Your task to perform on an android device: Open Reddit.com Image 0: 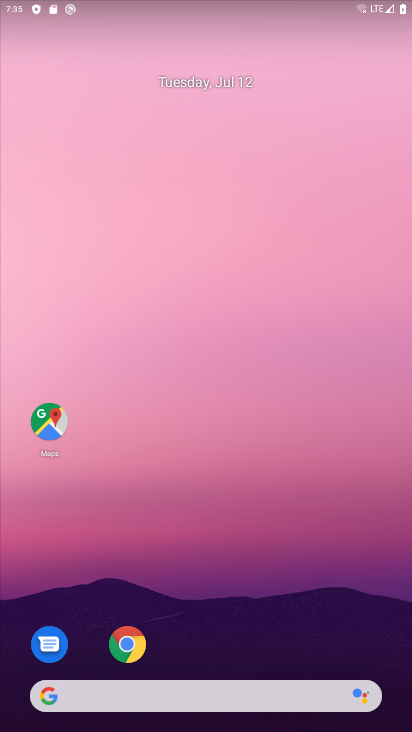
Step 0: drag from (212, 612) to (360, 128)
Your task to perform on an android device: Open Reddit.com Image 1: 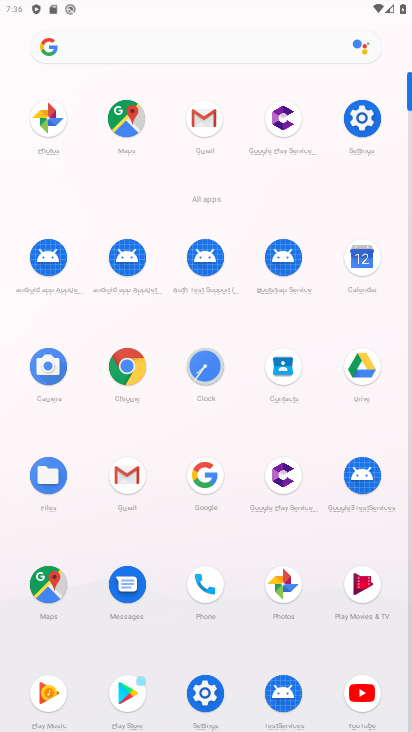
Step 1: click (164, 52)
Your task to perform on an android device: Open Reddit.com Image 2: 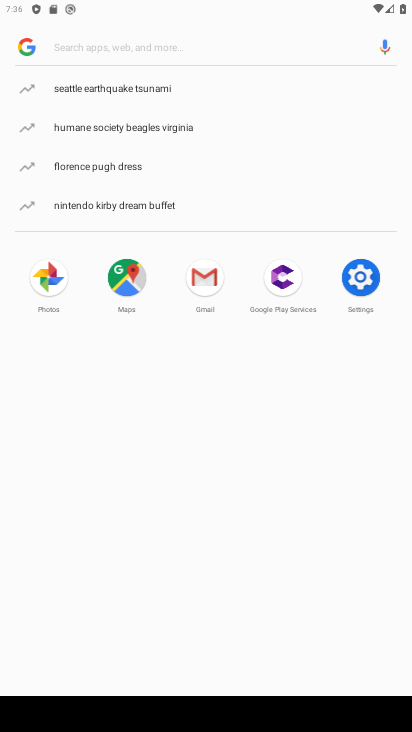
Step 2: type "Reddit.com"
Your task to perform on an android device: Open Reddit.com Image 3: 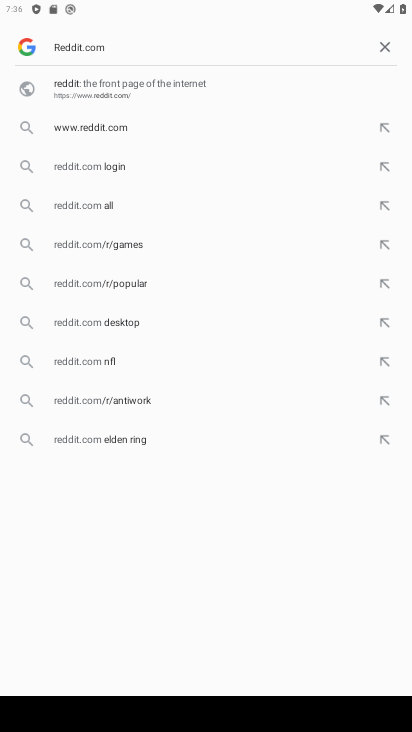
Step 3: type ""
Your task to perform on an android device: Open Reddit.com Image 4: 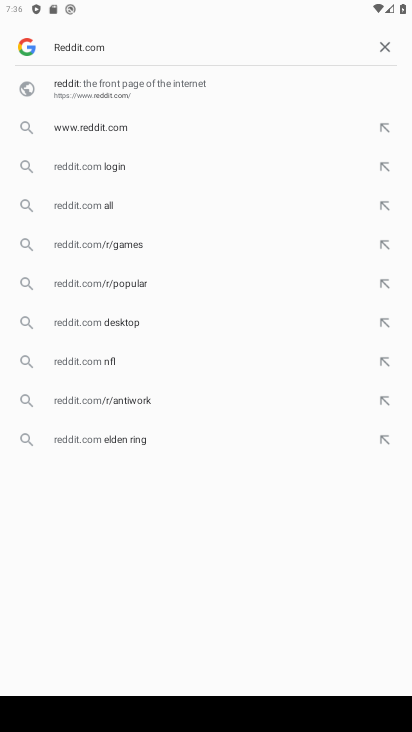
Step 4: click (113, 119)
Your task to perform on an android device: Open Reddit.com Image 5: 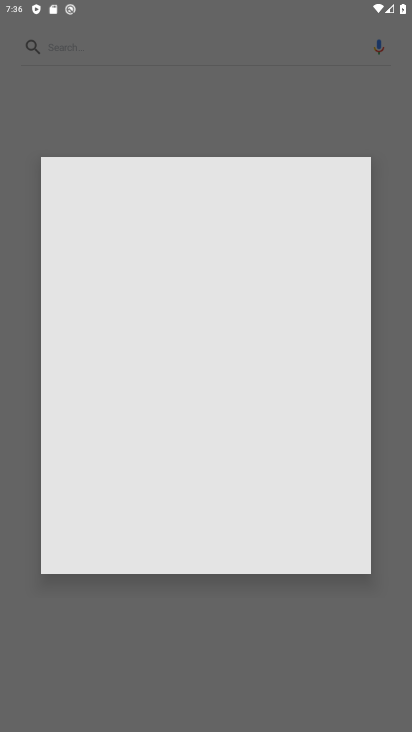
Step 5: drag from (208, 534) to (267, 51)
Your task to perform on an android device: Open Reddit.com Image 6: 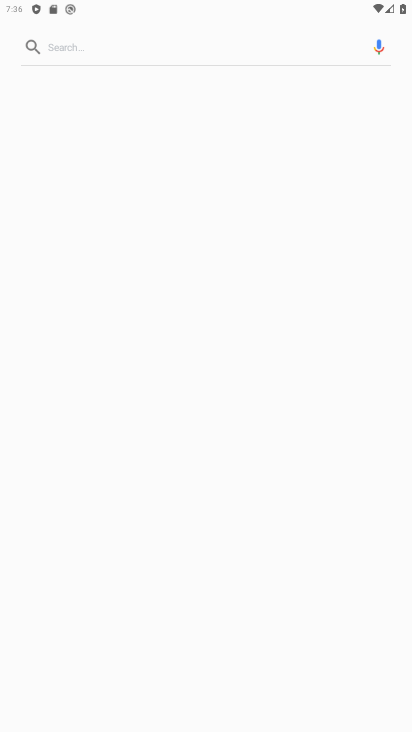
Step 6: drag from (215, 489) to (223, 101)
Your task to perform on an android device: Open Reddit.com Image 7: 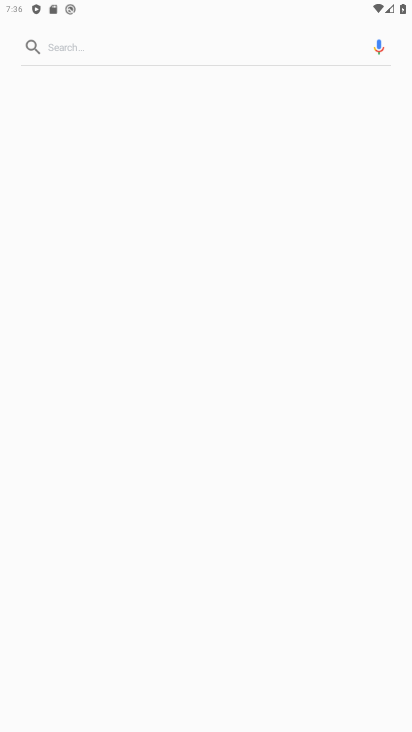
Step 7: click (52, 45)
Your task to perform on an android device: Open Reddit.com Image 8: 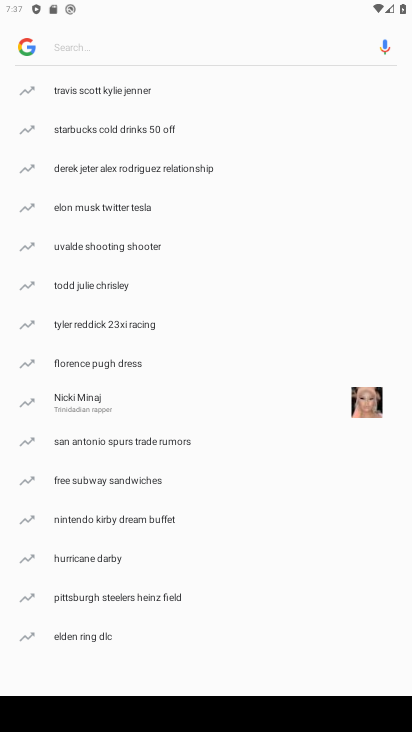
Step 8: type "Reddit.com"
Your task to perform on an android device: Open Reddit.com Image 9: 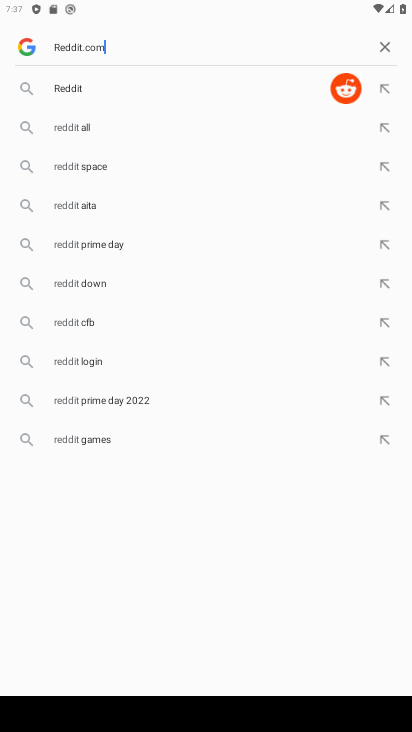
Step 9: type ""
Your task to perform on an android device: Open Reddit.com Image 10: 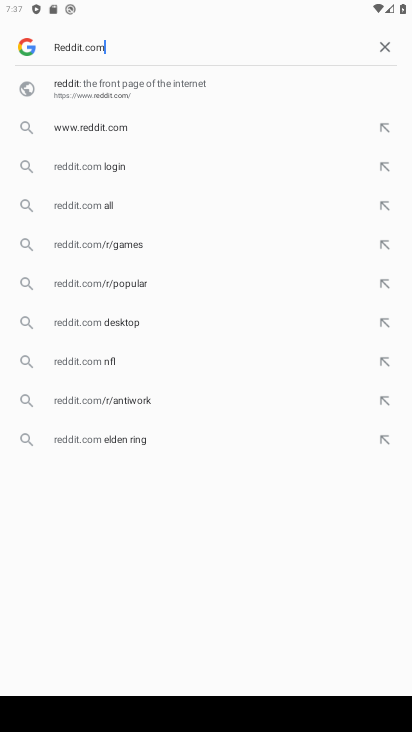
Step 10: click (70, 120)
Your task to perform on an android device: Open Reddit.com Image 11: 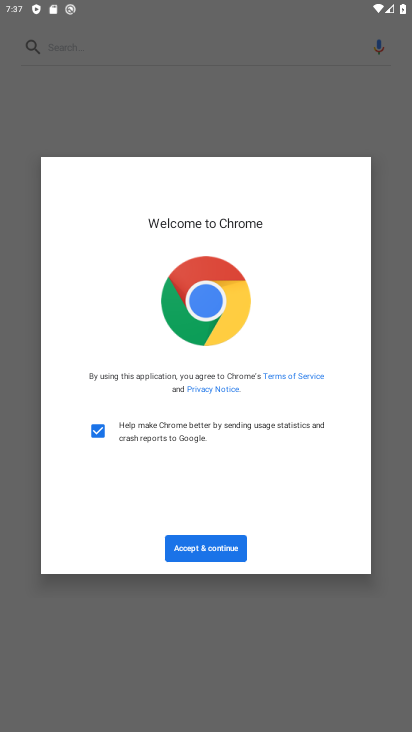
Step 11: click (190, 548)
Your task to perform on an android device: Open Reddit.com Image 12: 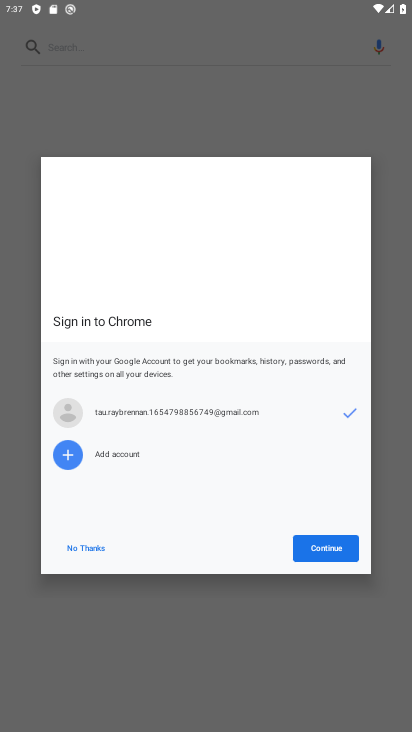
Step 12: click (324, 558)
Your task to perform on an android device: Open Reddit.com Image 13: 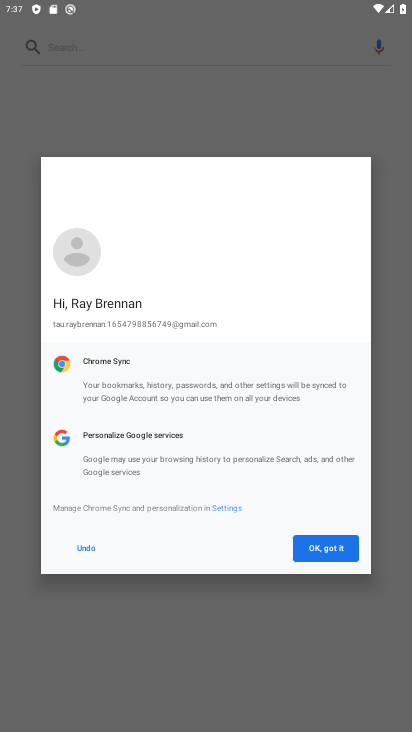
Step 13: click (319, 556)
Your task to perform on an android device: Open Reddit.com Image 14: 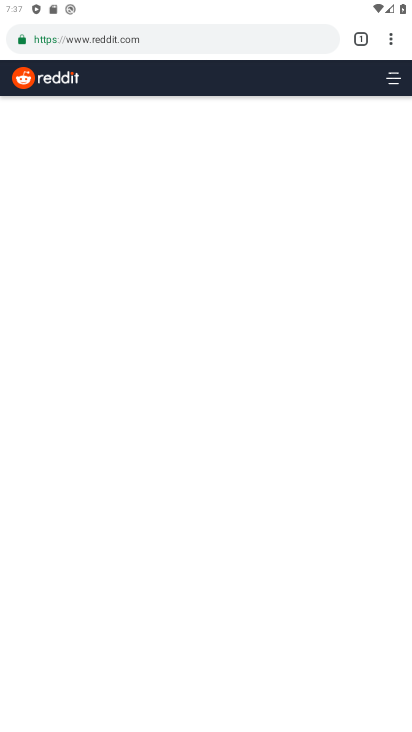
Step 14: task complete